Your task to perform on an android device: add a label to a message in the gmail app Image 0: 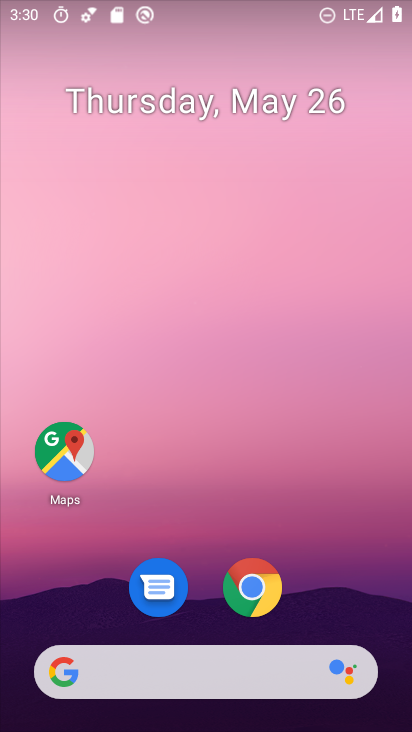
Step 0: drag from (323, 569) to (350, 144)
Your task to perform on an android device: add a label to a message in the gmail app Image 1: 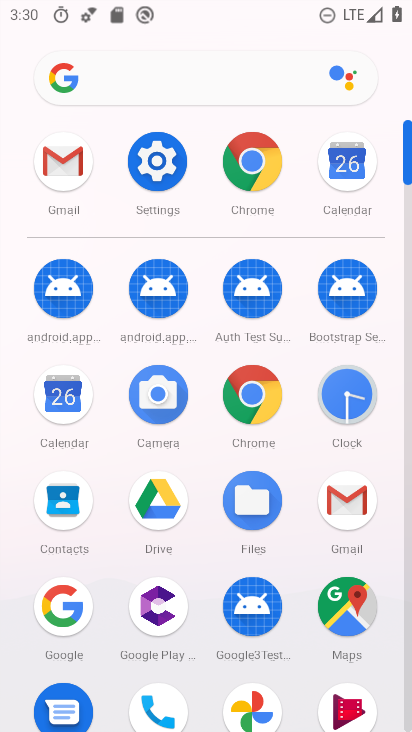
Step 1: click (71, 170)
Your task to perform on an android device: add a label to a message in the gmail app Image 2: 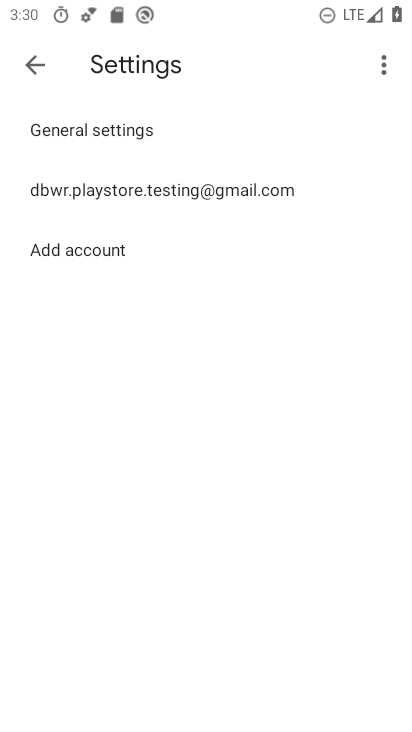
Step 2: click (38, 68)
Your task to perform on an android device: add a label to a message in the gmail app Image 3: 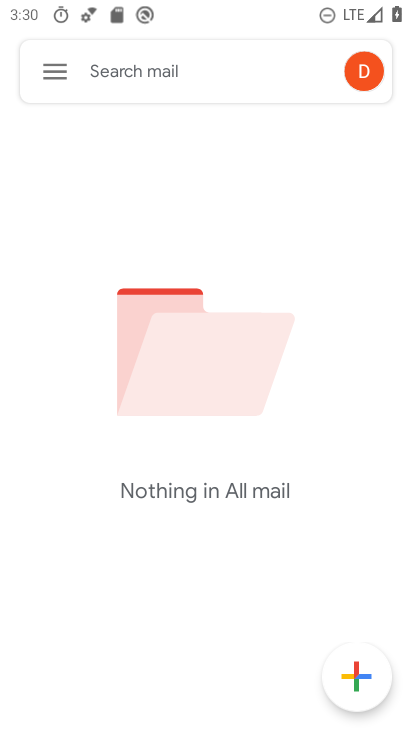
Step 3: click (38, 68)
Your task to perform on an android device: add a label to a message in the gmail app Image 4: 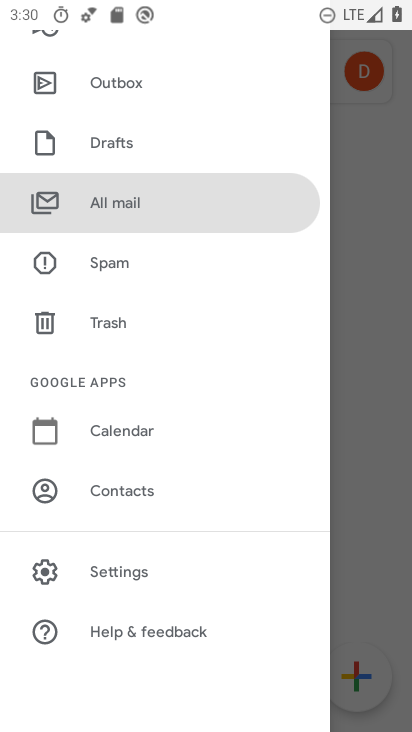
Step 4: click (166, 210)
Your task to perform on an android device: add a label to a message in the gmail app Image 5: 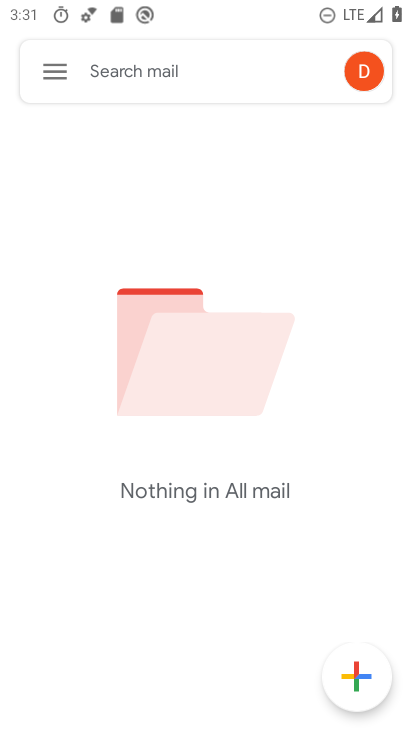
Step 5: task complete